Your task to perform on an android device: Turn off the flashlight Image 0: 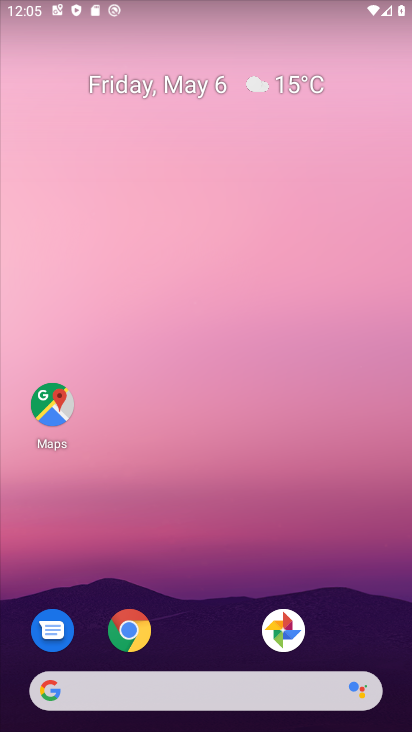
Step 0: drag from (307, 7) to (333, 272)
Your task to perform on an android device: Turn off the flashlight Image 1: 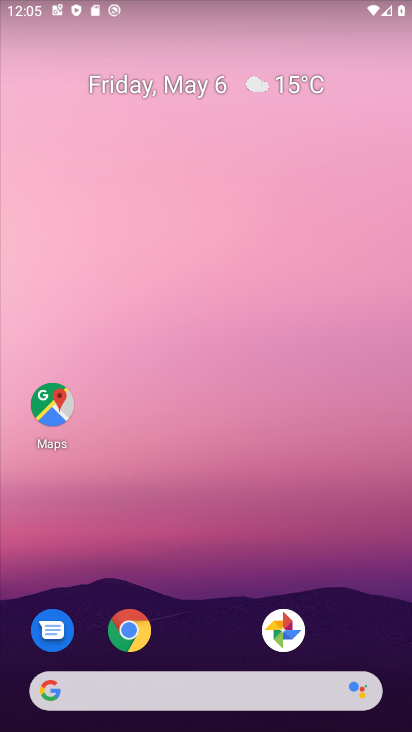
Step 1: task complete